Your task to perform on an android device: Go to settings Image 0: 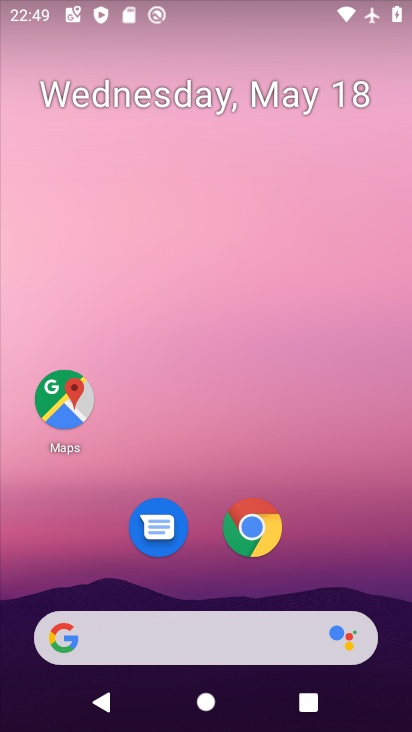
Step 0: drag from (329, 525) to (289, 61)
Your task to perform on an android device: Go to settings Image 1: 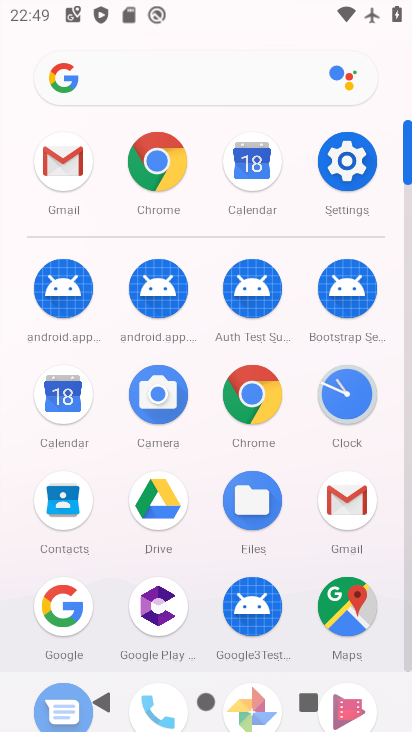
Step 1: click (354, 155)
Your task to perform on an android device: Go to settings Image 2: 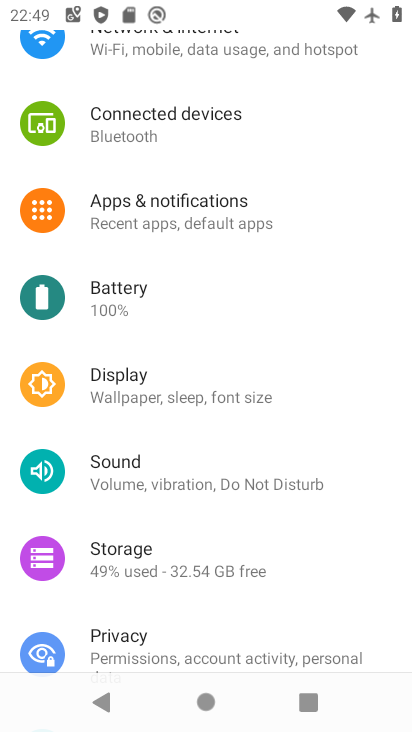
Step 2: task complete